Your task to perform on an android device: change the upload size in google photos Image 0: 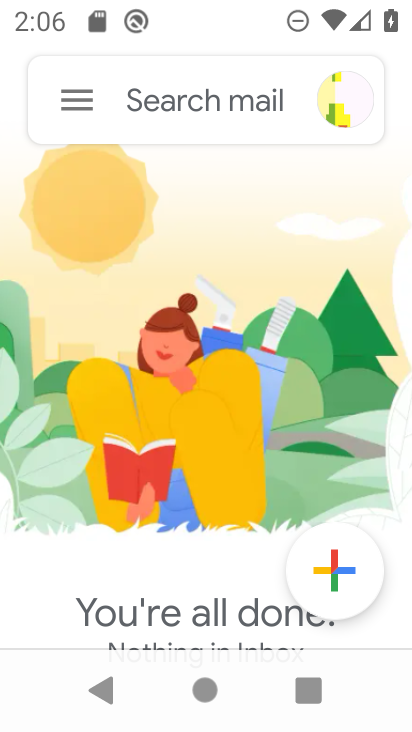
Step 0: press home button
Your task to perform on an android device: change the upload size in google photos Image 1: 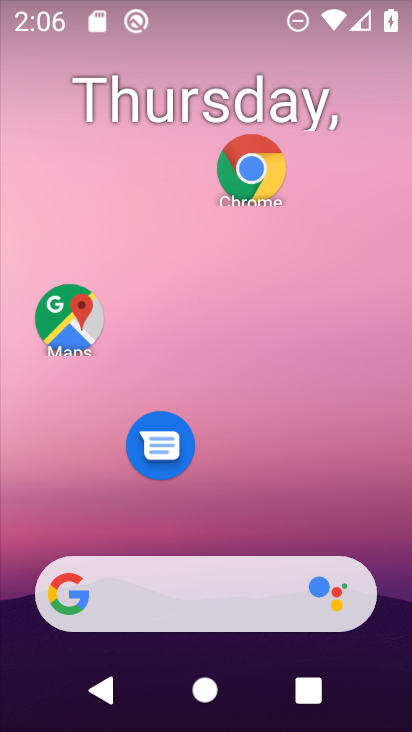
Step 1: drag from (244, 637) to (280, 223)
Your task to perform on an android device: change the upload size in google photos Image 2: 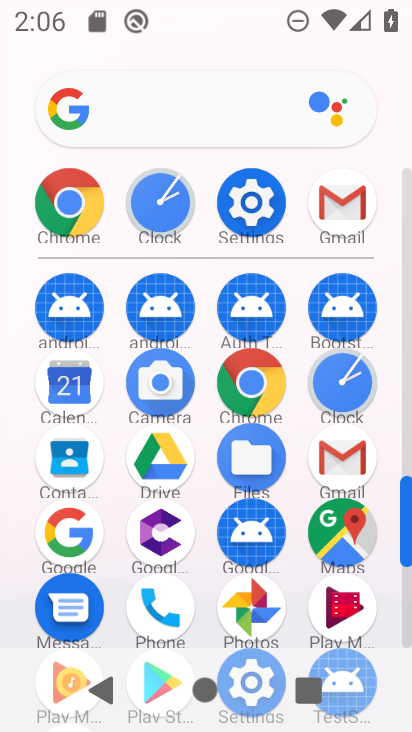
Step 2: click (263, 600)
Your task to perform on an android device: change the upload size in google photos Image 3: 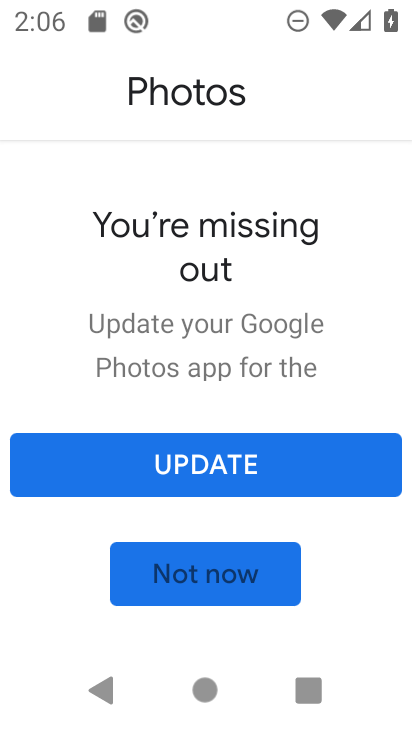
Step 3: click (224, 472)
Your task to perform on an android device: change the upload size in google photos Image 4: 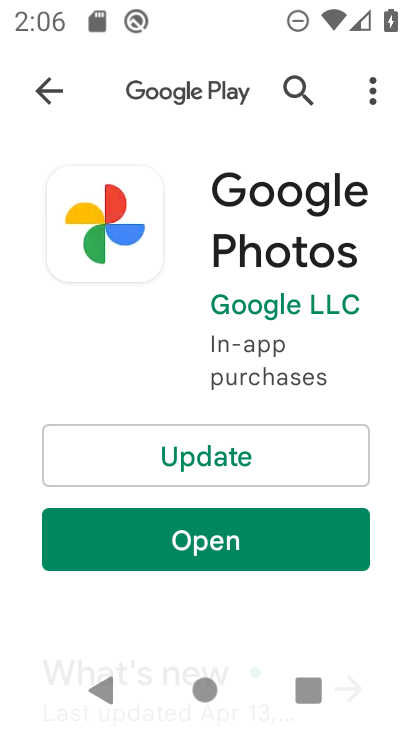
Step 4: click (198, 530)
Your task to perform on an android device: change the upload size in google photos Image 5: 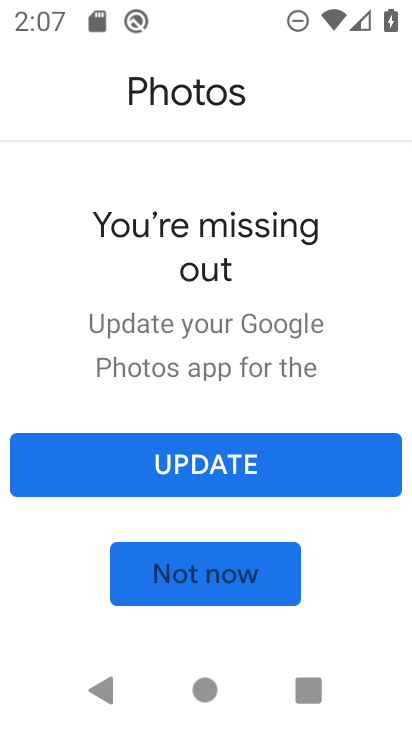
Step 5: click (195, 486)
Your task to perform on an android device: change the upload size in google photos Image 6: 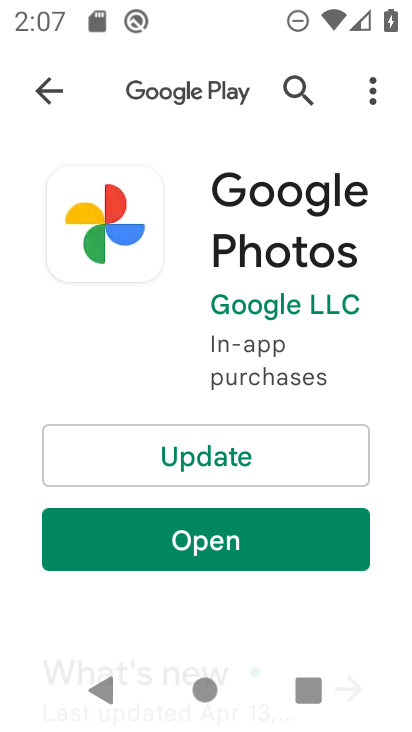
Step 6: click (194, 468)
Your task to perform on an android device: change the upload size in google photos Image 7: 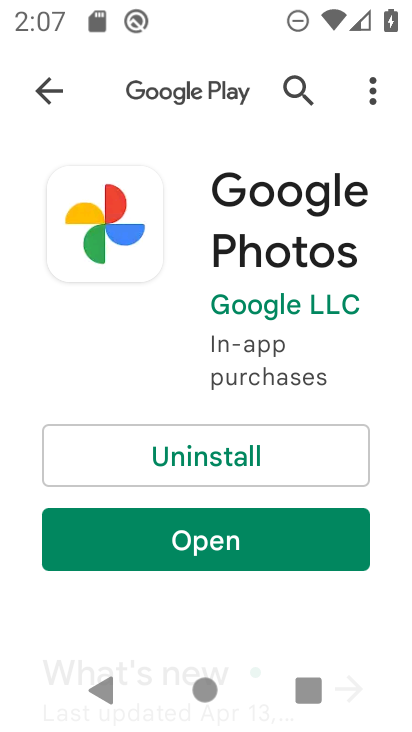
Step 7: click (193, 539)
Your task to perform on an android device: change the upload size in google photos Image 8: 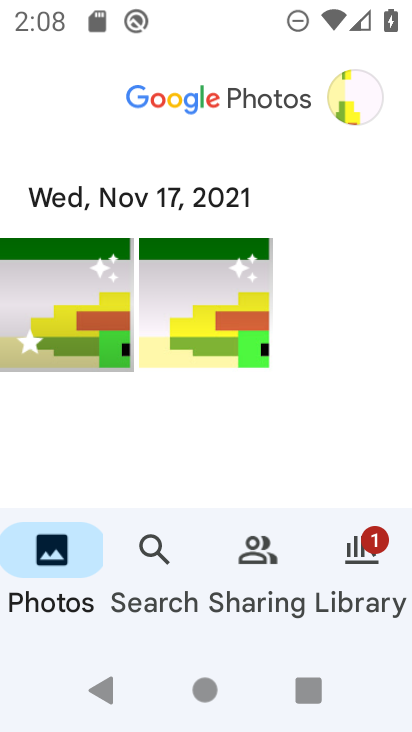
Step 8: click (347, 100)
Your task to perform on an android device: change the upload size in google photos Image 9: 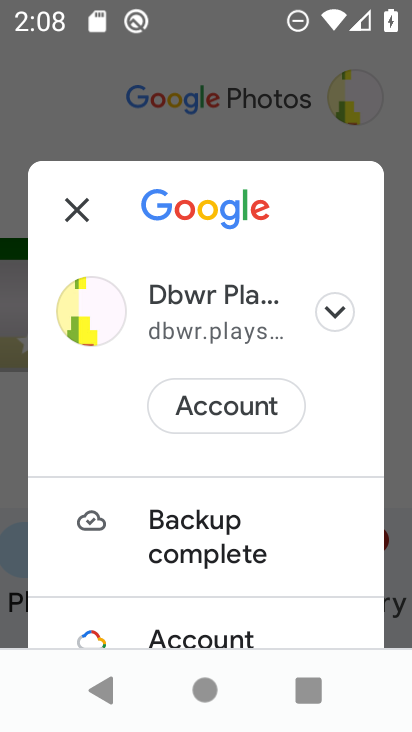
Step 9: drag from (192, 556) to (270, 323)
Your task to perform on an android device: change the upload size in google photos Image 10: 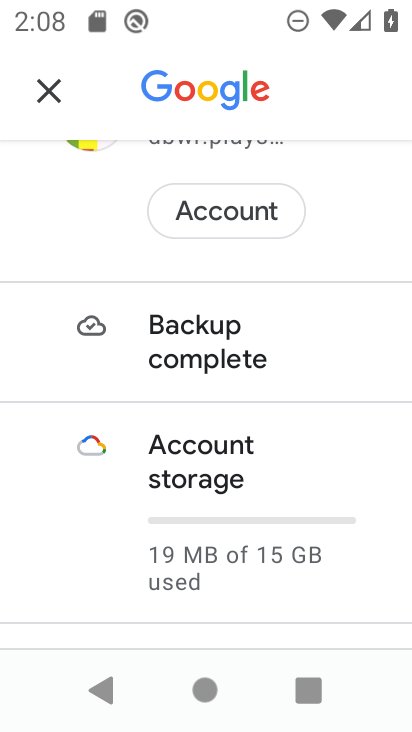
Step 10: drag from (209, 529) to (239, 251)
Your task to perform on an android device: change the upload size in google photos Image 11: 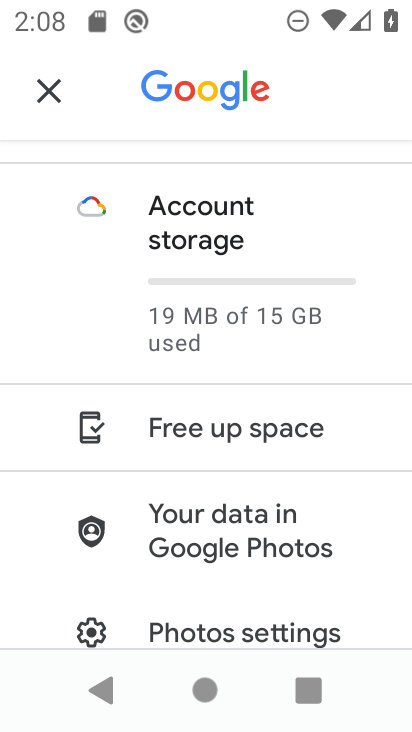
Step 11: click (186, 623)
Your task to perform on an android device: change the upload size in google photos Image 12: 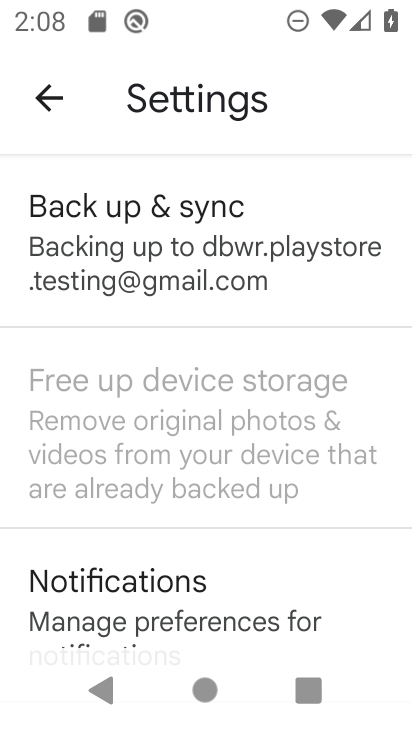
Step 12: click (229, 228)
Your task to perform on an android device: change the upload size in google photos Image 13: 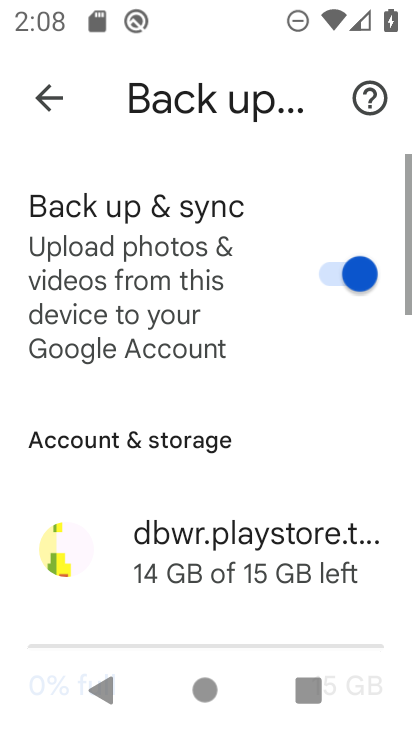
Step 13: drag from (154, 564) to (211, 255)
Your task to perform on an android device: change the upload size in google photos Image 14: 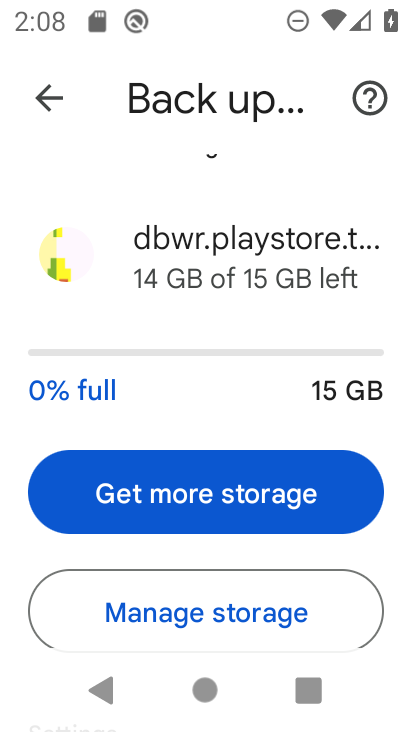
Step 14: drag from (227, 404) to (250, 234)
Your task to perform on an android device: change the upload size in google photos Image 15: 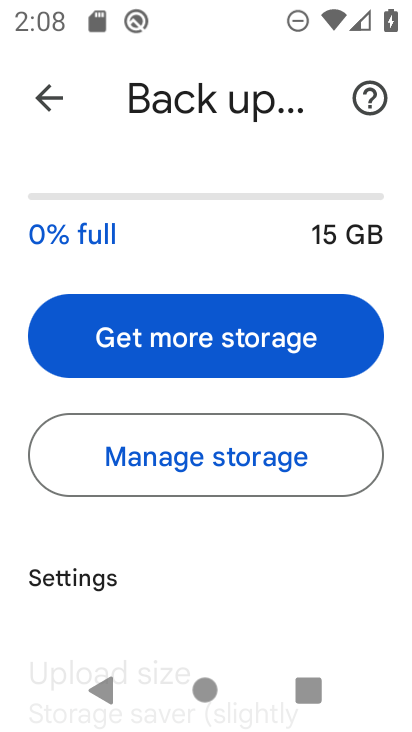
Step 15: drag from (166, 586) to (237, 350)
Your task to perform on an android device: change the upload size in google photos Image 16: 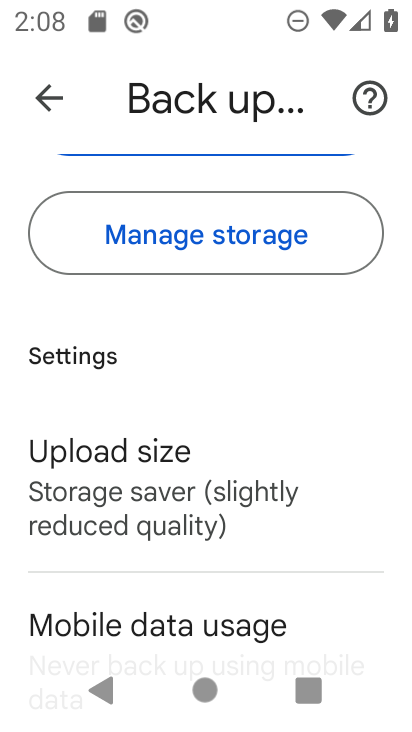
Step 16: click (159, 503)
Your task to perform on an android device: change the upload size in google photos Image 17: 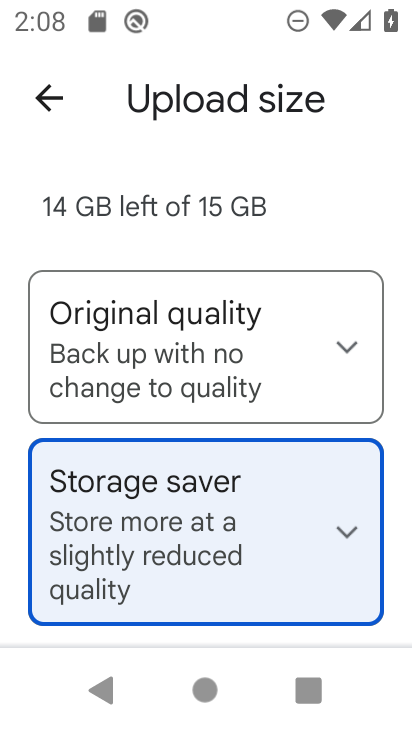
Step 17: task complete